Your task to perform on an android device: Open Google Maps and go to "Timeline" Image 0: 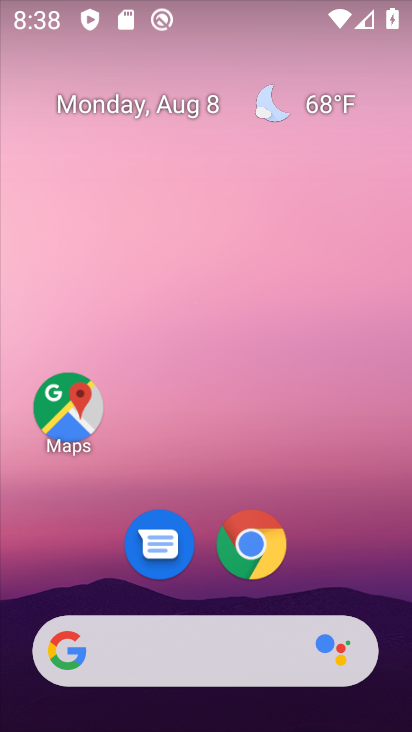
Step 0: press home button
Your task to perform on an android device: Open Google Maps and go to "Timeline" Image 1: 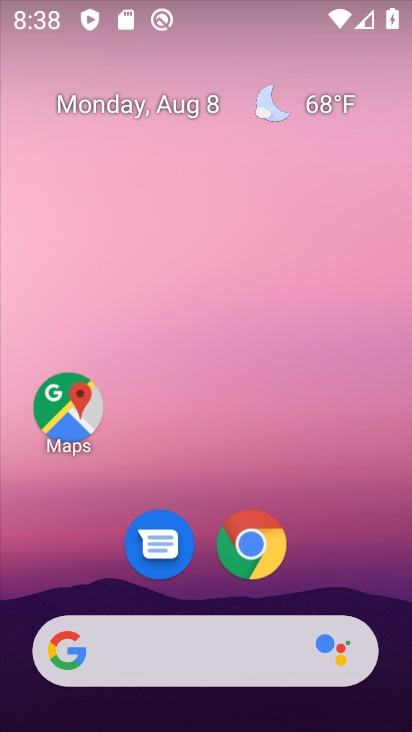
Step 1: drag from (314, 563) to (324, 0)
Your task to perform on an android device: Open Google Maps and go to "Timeline" Image 2: 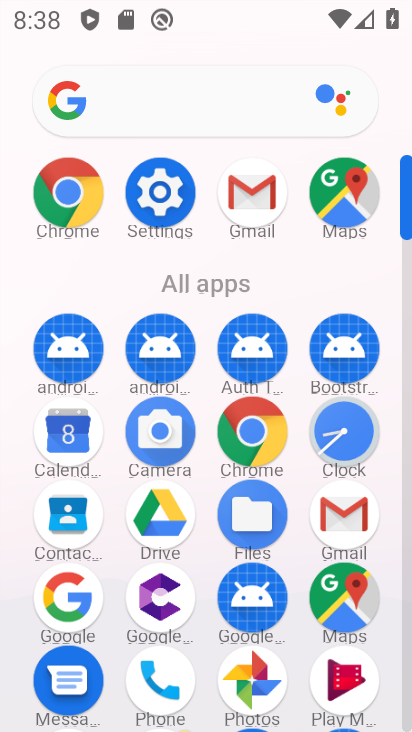
Step 2: click (340, 182)
Your task to perform on an android device: Open Google Maps and go to "Timeline" Image 3: 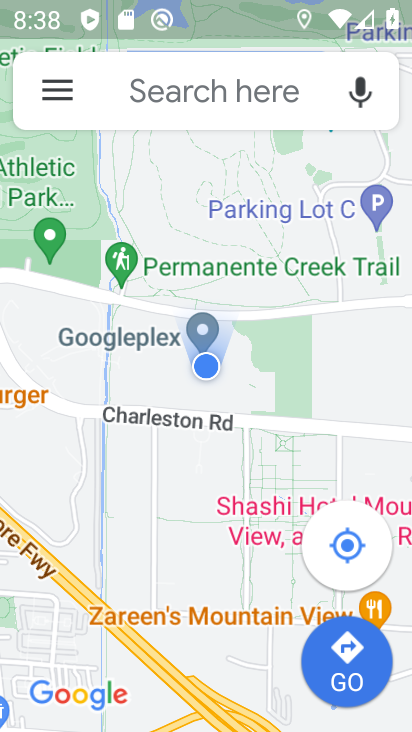
Step 3: click (49, 91)
Your task to perform on an android device: Open Google Maps and go to "Timeline" Image 4: 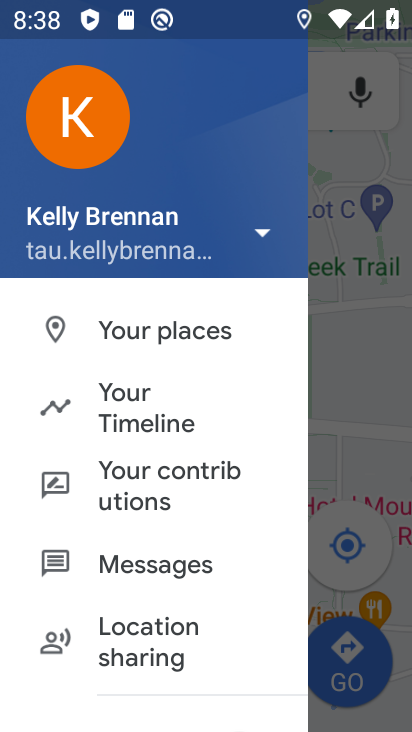
Step 4: click (171, 395)
Your task to perform on an android device: Open Google Maps and go to "Timeline" Image 5: 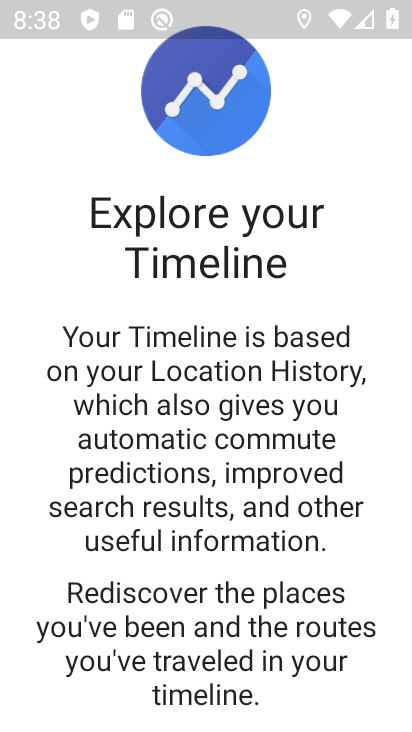
Step 5: drag from (220, 655) to (240, 127)
Your task to perform on an android device: Open Google Maps and go to "Timeline" Image 6: 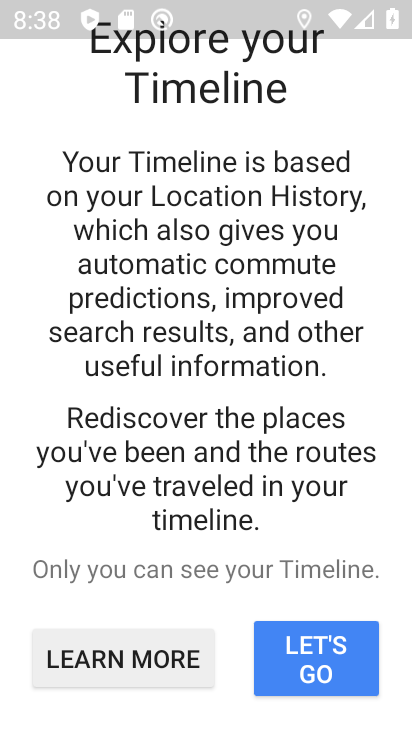
Step 6: click (314, 656)
Your task to perform on an android device: Open Google Maps and go to "Timeline" Image 7: 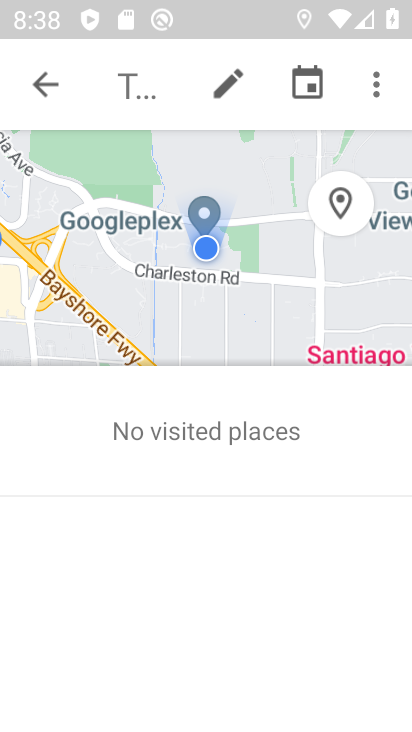
Step 7: task complete